Your task to perform on an android device: change notification settings in the gmail app Image 0: 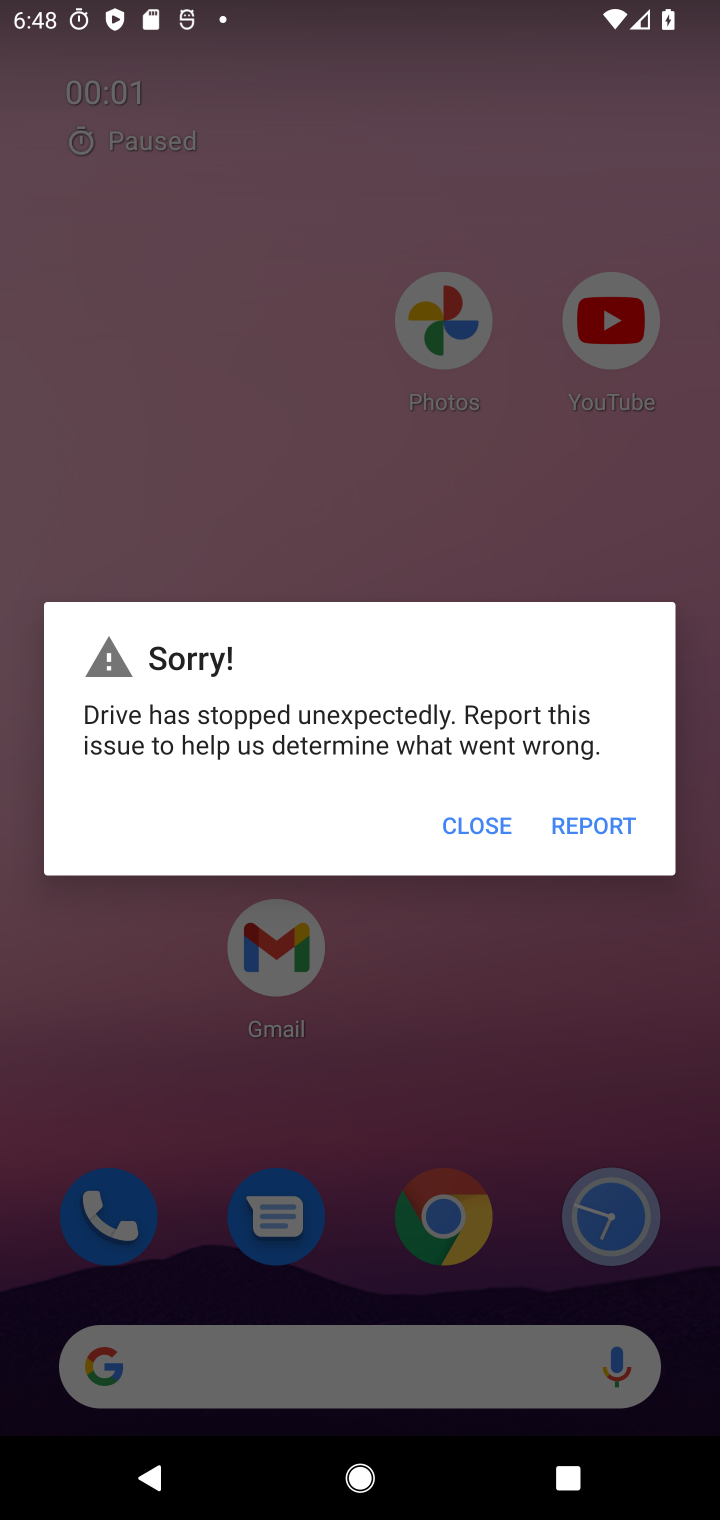
Step 0: press home button
Your task to perform on an android device: change notification settings in the gmail app Image 1: 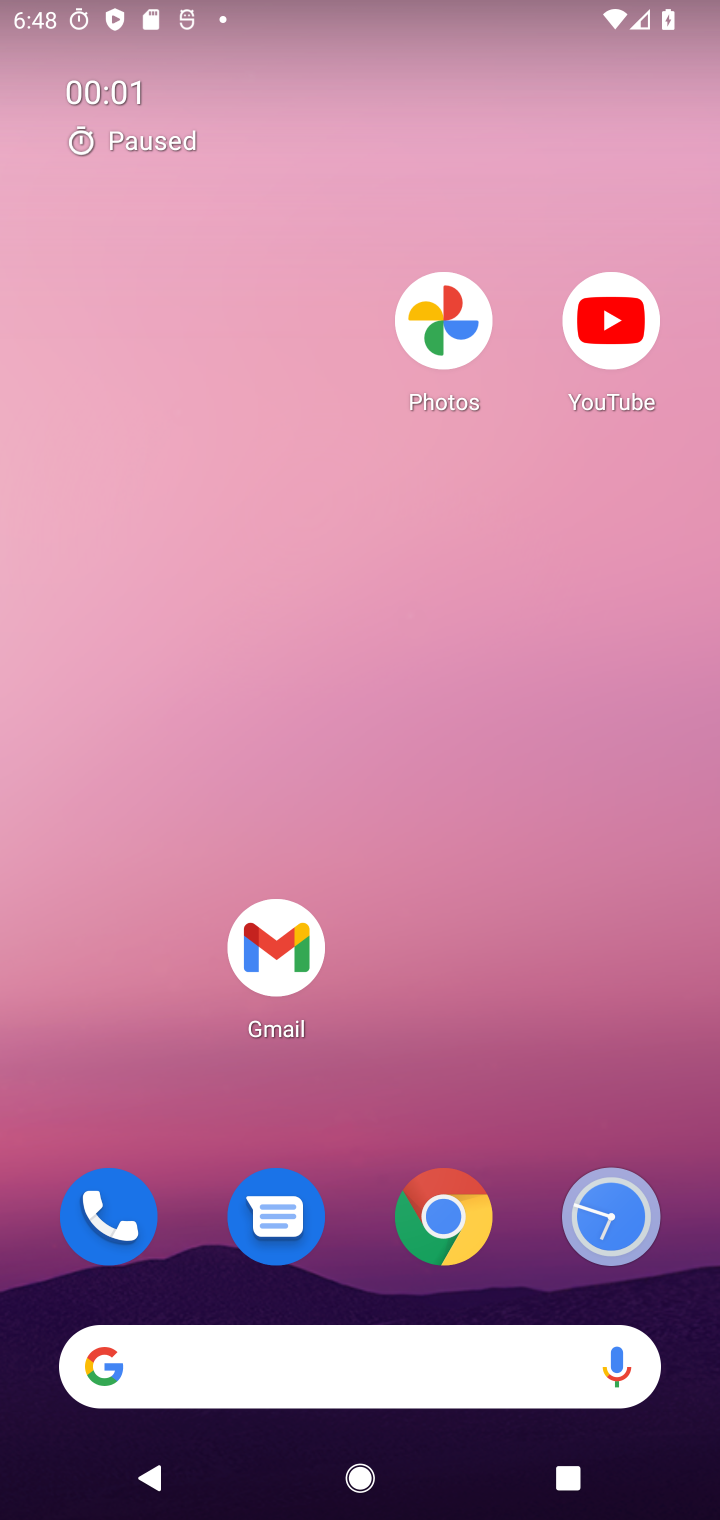
Step 1: drag from (537, 861) to (442, 70)
Your task to perform on an android device: change notification settings in the gmail app Image 2: 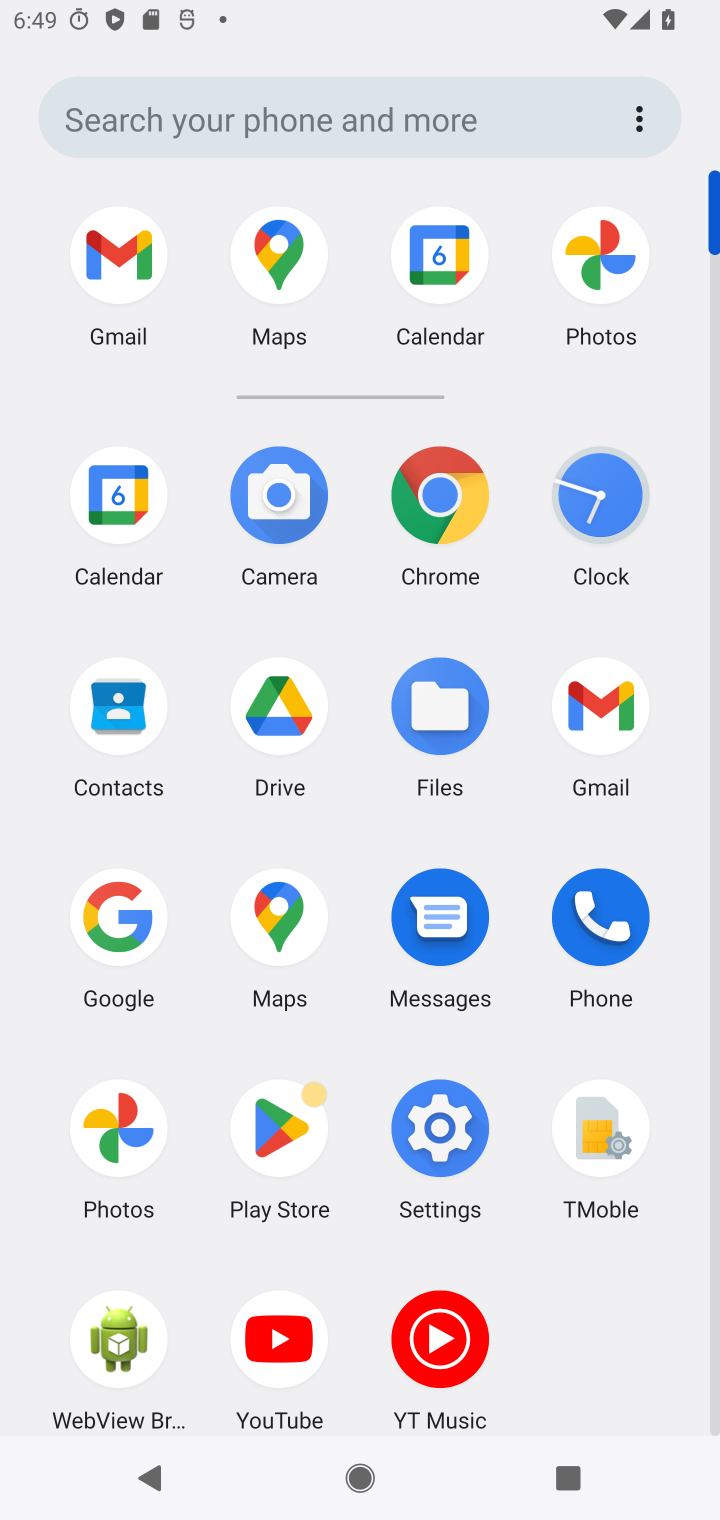
Step 2: click (631, 706)
Your task to perform on an android device: change notification settings in the gmail app Image 3: 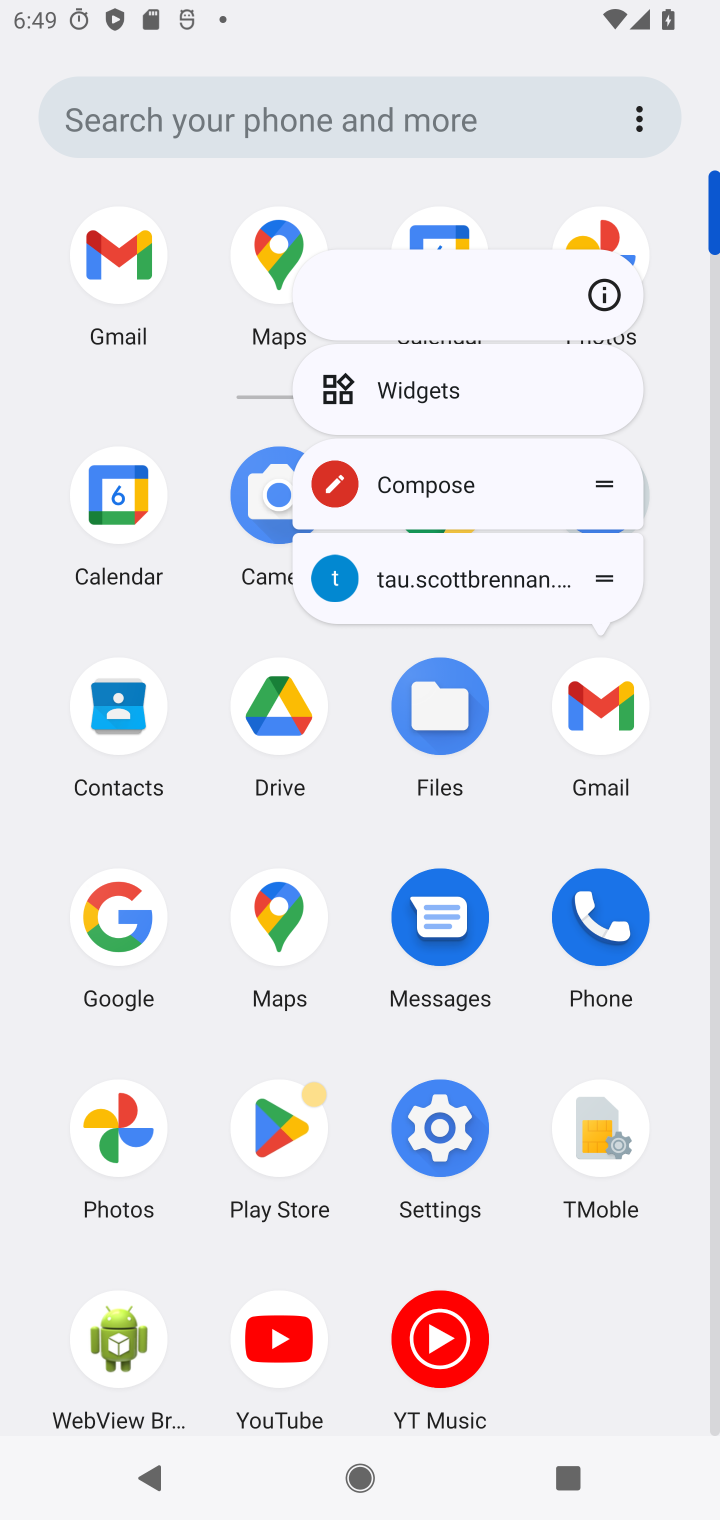
Step 3: click (611, 717)
Your task to perform on an android device: change notification settings in the gmail app Image 4: 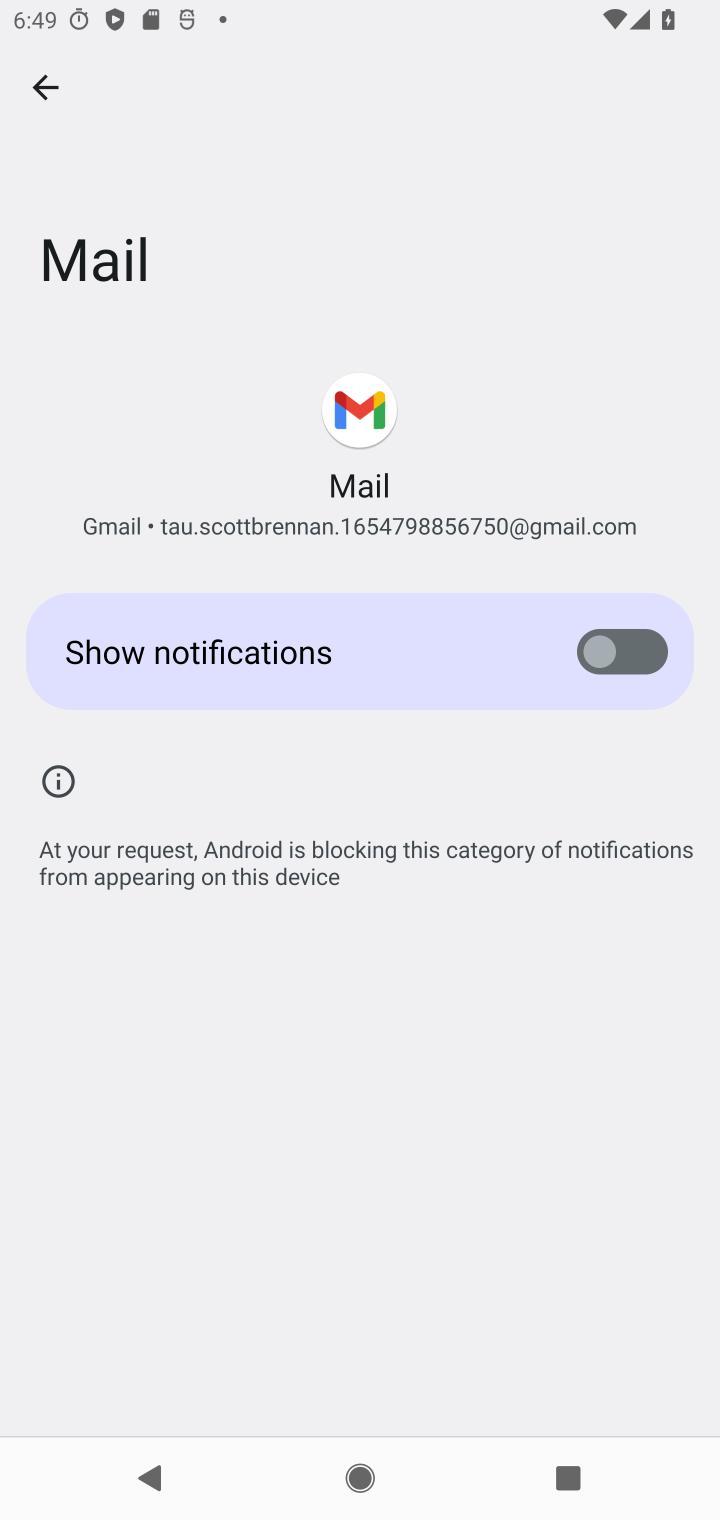
Step 4: click (37, 88)
Your task to perform on an android device: change notification settings in the gmail app Image 5: 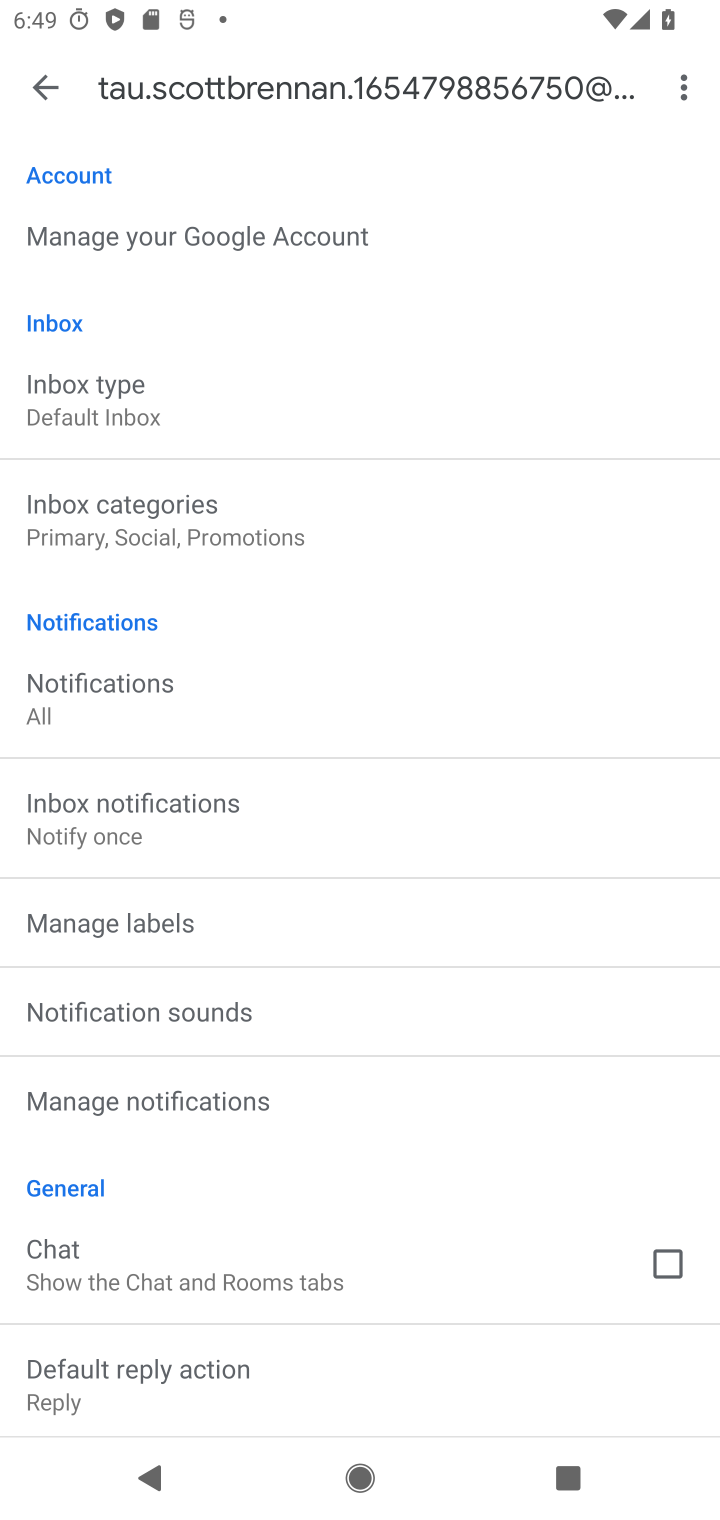
Step 5: click (131, 1106)
Your task to perform on an android device: change notification settings in the gmail app Image 6: 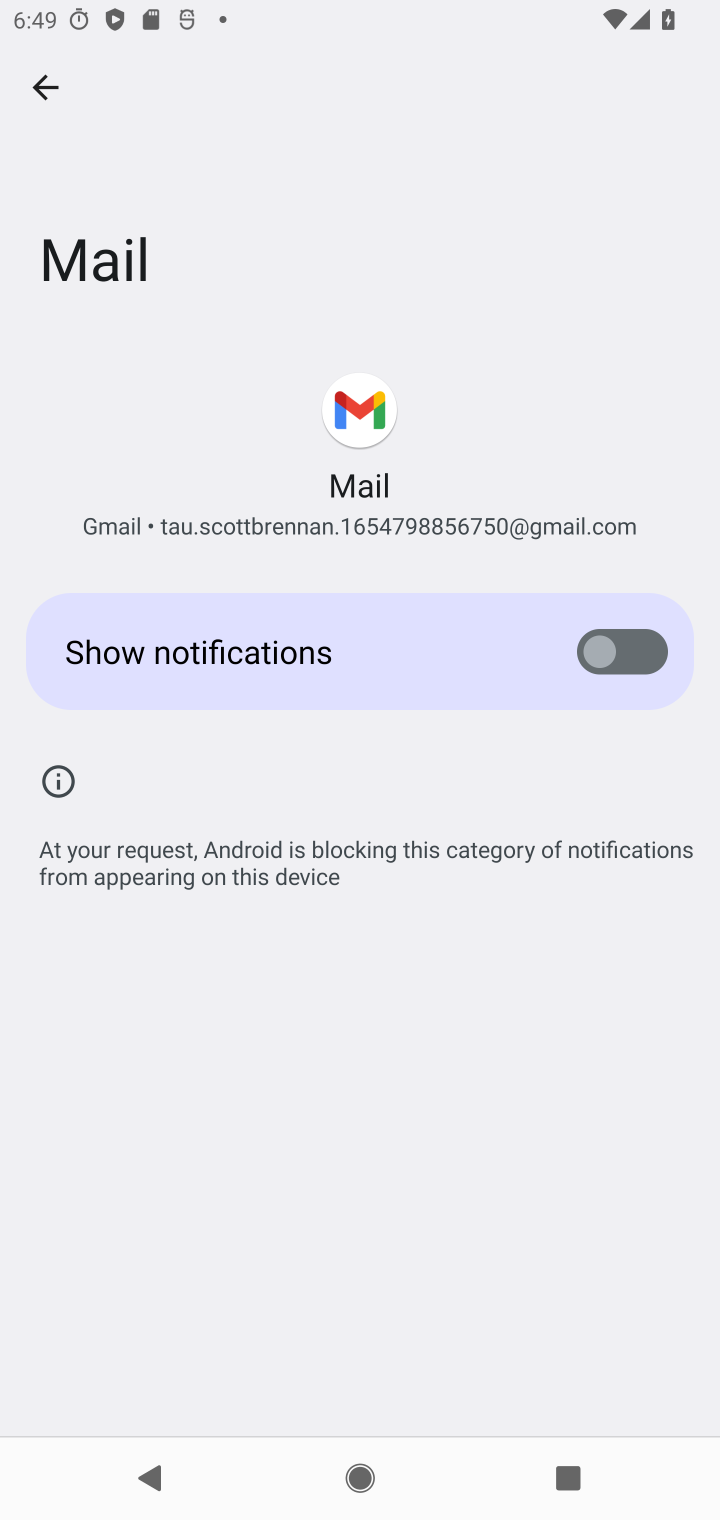
Step 6: click (530, 681)
Your task to perform on an android device: change notification settings in the gmail app Image 7: 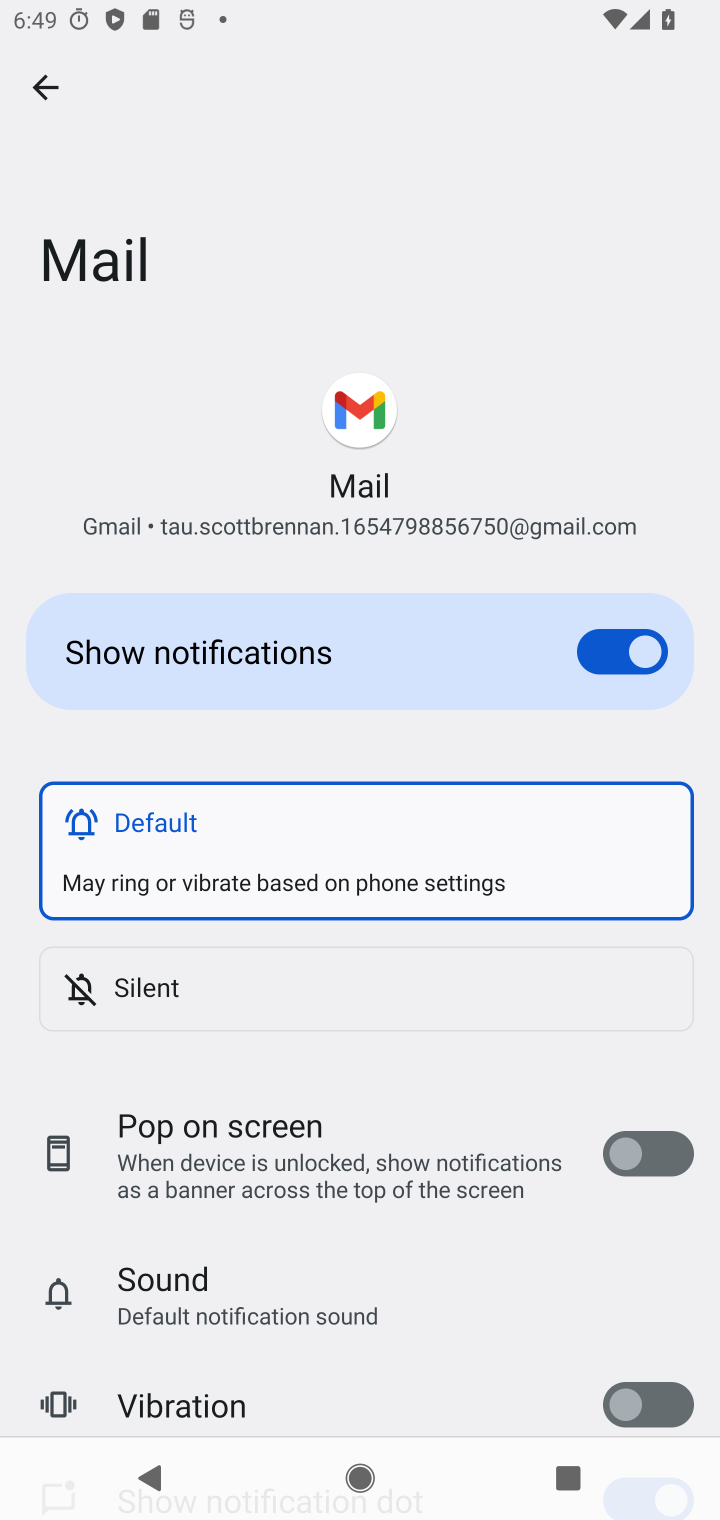
Step 7: task complete